Your task to perform on an android device: turn off smart reply in the gmail app Image 0: 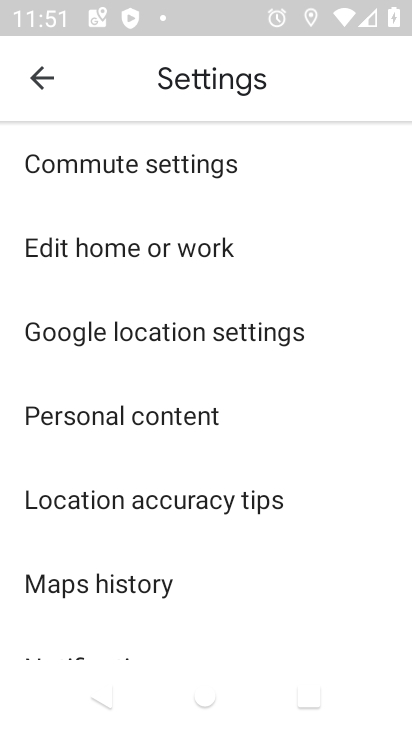
Step 0: press home button
Your task to perform on an android device: turn off smart reply in the gmail app Image 1: 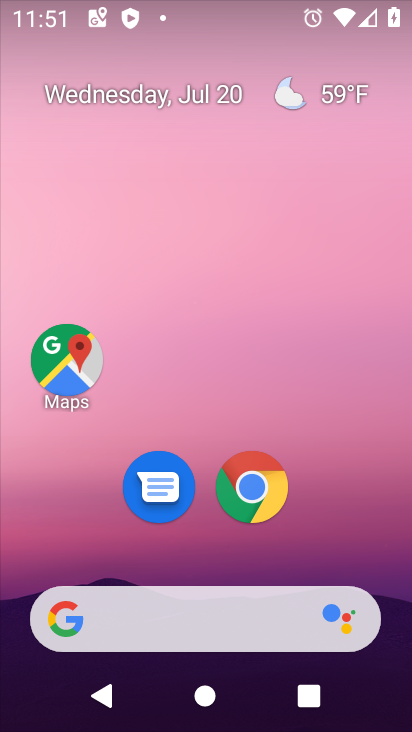
Step 1: drag from (373, 522) to (395, 99)
Your task to perform on an android device: turn off smart reply in the gmail app Image 2: 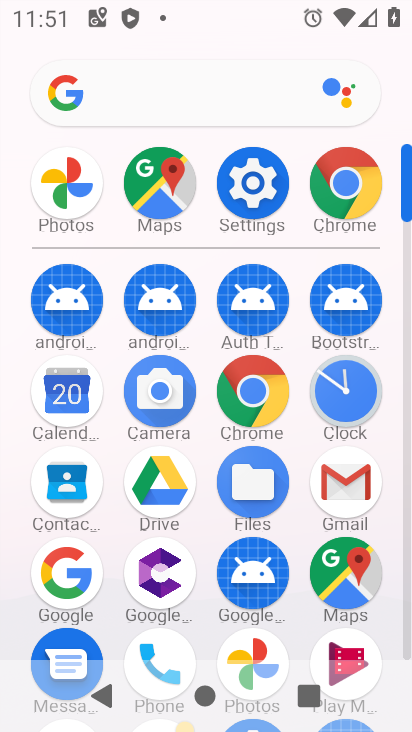
Step 2: click (362, 477)
Your task to perform on an android device: turn off smart reply in the gmail app Image 3: 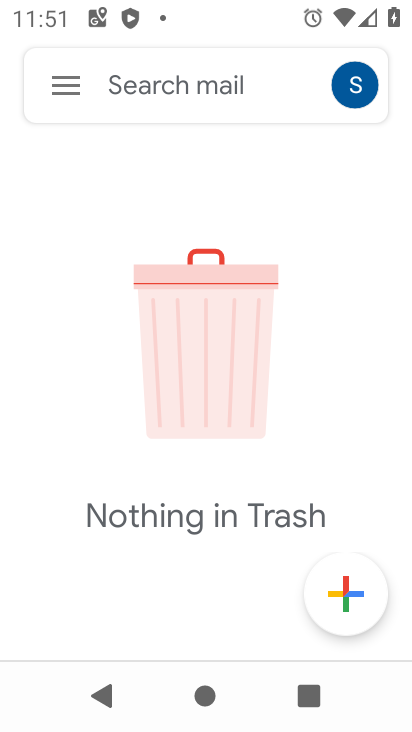
Step 3: click (65, 88)
Your task to perform on an android device: turn off smart reply in the gmail app Image 4: 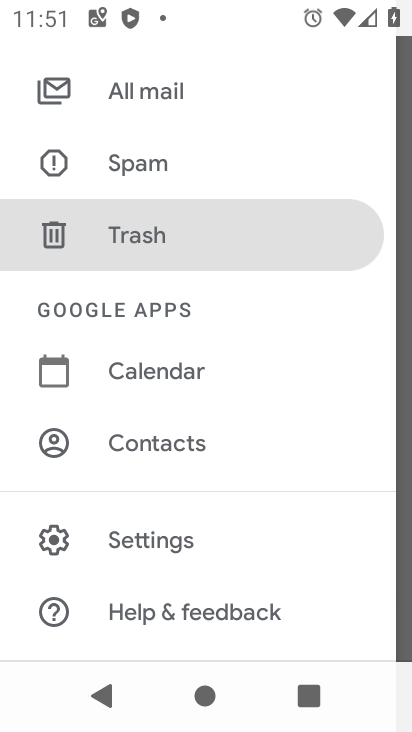
Step 4: drag from (294, 135) to (319, 253)
Your task to perform on an android device: turn off smart reply in the gmail app Image 5: 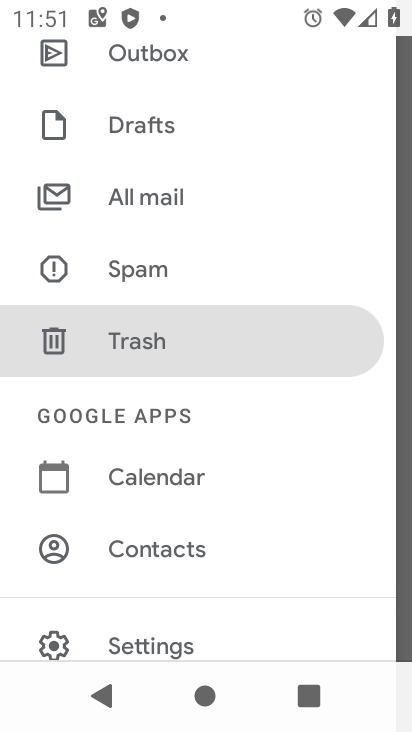
Step 5: drag from (339, 134) to (324, 253)
Your task to perform on an android device: turn off smart reply in the gmail app Image 6: 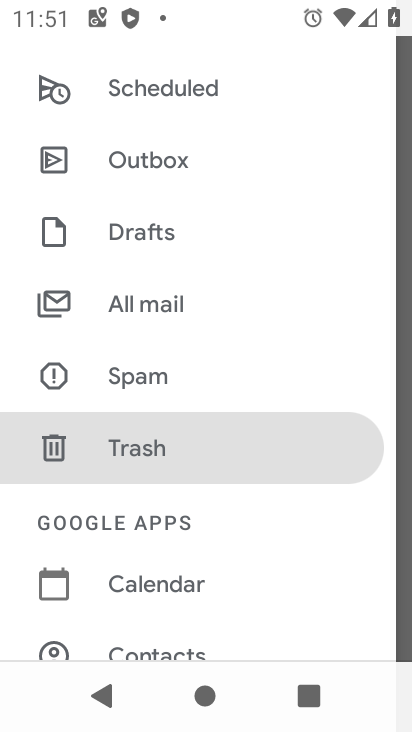
Step 6: drag from (328, 130) to (321, 288)
Your task to perform on an android device: turn off smart reply in the gmail app Image 7: 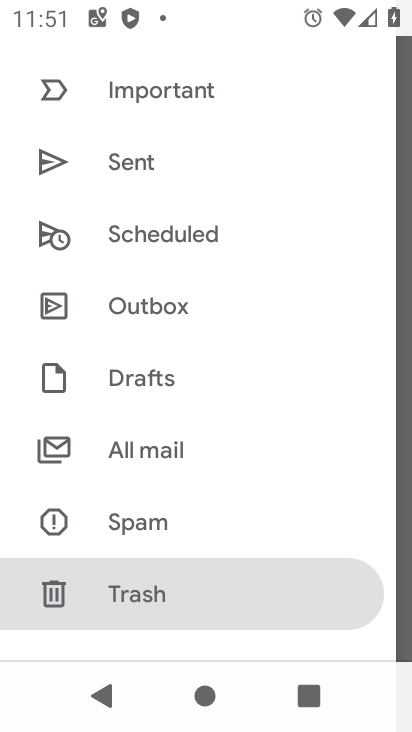
Step 7: drag from (320, 168) to (322, 291)
Your task to perform on an android device: turn off smart reply in the gmail app Image 8: 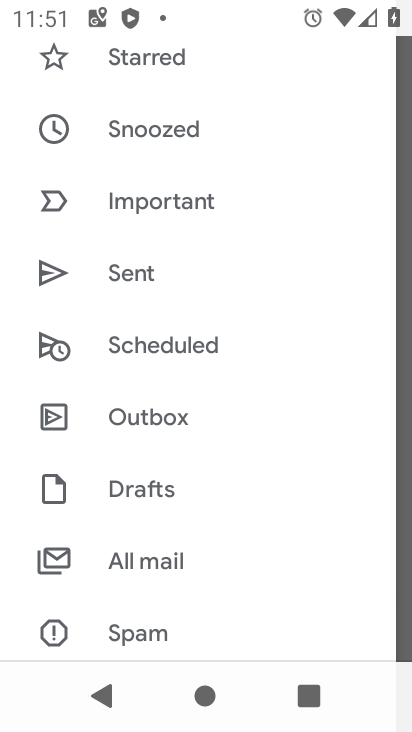
Step 8: drag from (321, 338) to (315, 236)
Your task to perform on an android device: turn off smart reply in the gmail app Image 9: 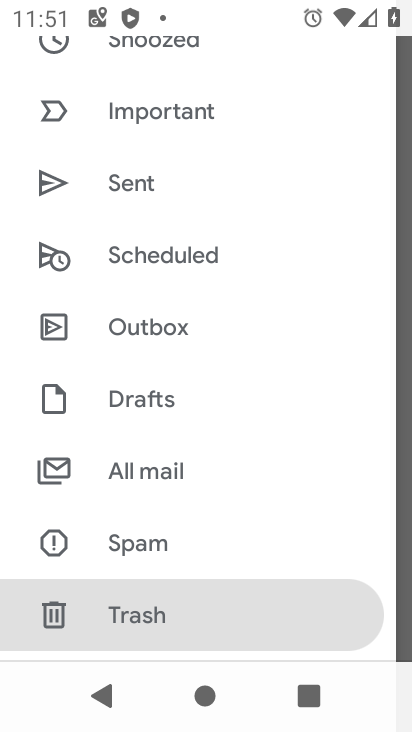
Step 9: drag from (324, 363) to (318, 252)
Your task to perform on an android device: turn off smart reply in the gmail app Image 10: 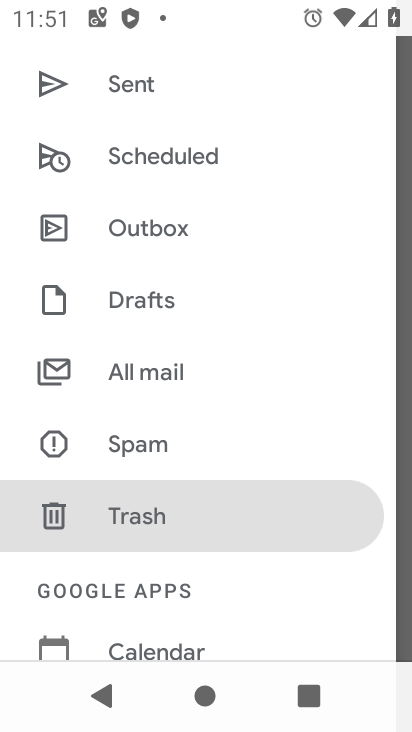
Step 10: drag from (295, 370) to (308, 255)
Your task to perform on an android device: turn off smart reply in the gmail app Image 11: 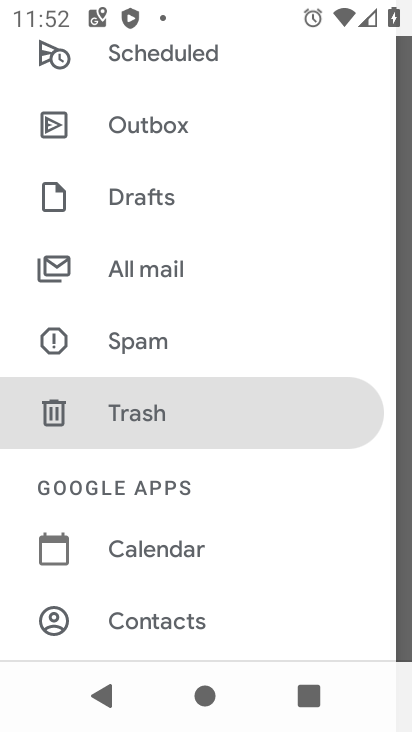
Step 11: drag from (306, 477) to (307, 295)
Your task to perform on an android device: turn off smart reply in the gmail app Image 12: 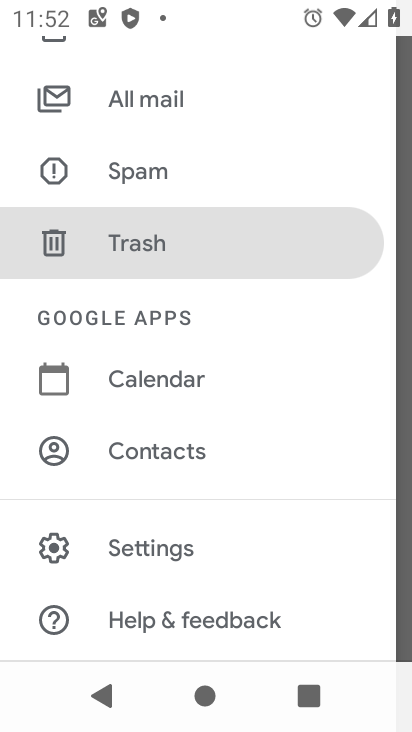
Step 12: click (269, 548)
Your task to perform on an android device: turn off smart reply in the gmail app Image 13: 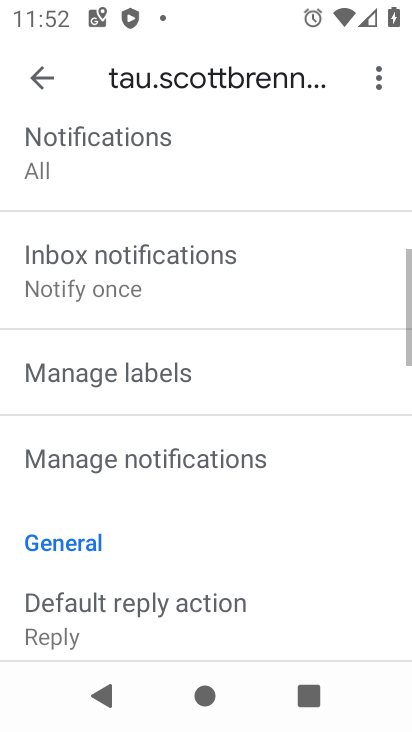
Step 13: drag from (270, 520) to (296, 400)
Your task to perform on an android device: turn off smart reply in the gmail app Image 14: 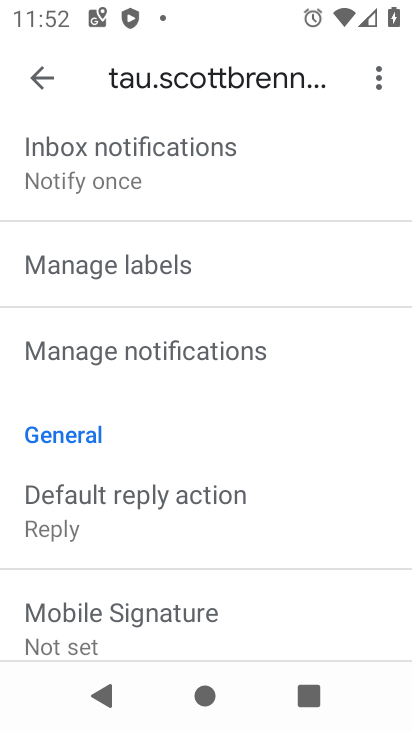
Step 14: drag from (311, 541) to (340, 424)
Your task to perform on an android device: turn off smart reply in the gmail app Image 15: 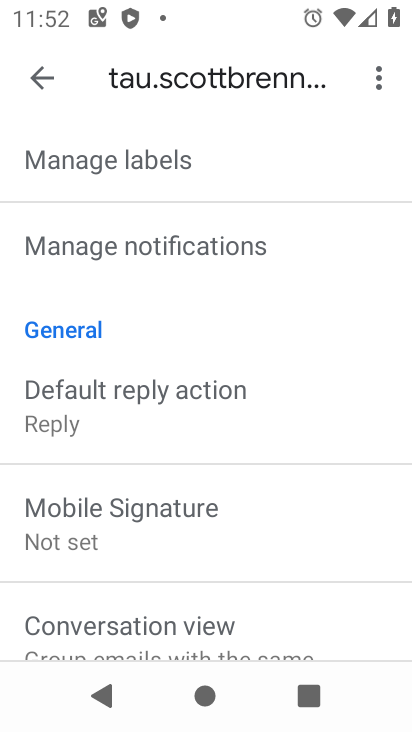
Step 15: drag from (325, 536) to (340, 424)
Your task to perform on an android device: turn off smart reply in the gmail app Image 16: 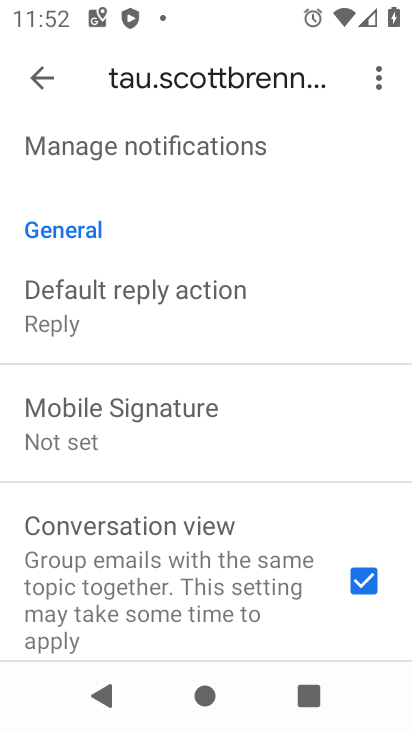
Step 16: drag from (314, 505) to (312, 358)
Your task to perform on an android device: turn off smart reply in the gmail app Image 17: 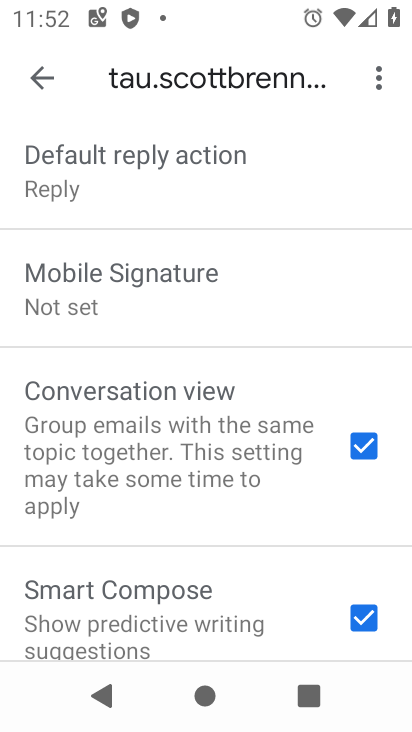
Step 17: drag from (294, 538) to (313, 408)
Your task to perform on an android device: turn off smart reply in the gmail app Image 18: 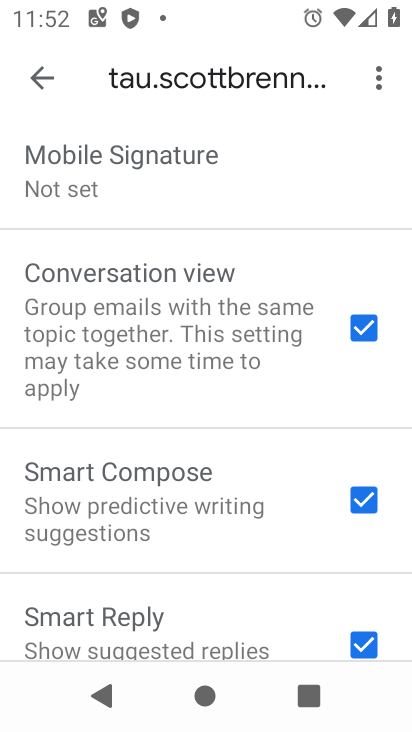
Step 18: drag from (274, 567) to (286, 416)
Your task to perform on an android device: turn off smart reply in the gmail app Image 19: 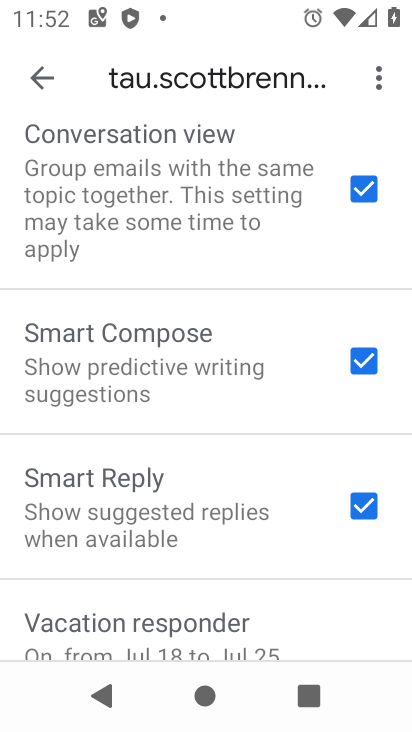
Step 19: click (366, 515)
Your task to perform on an android device: turn off smart reply in the gmail app Image 20: 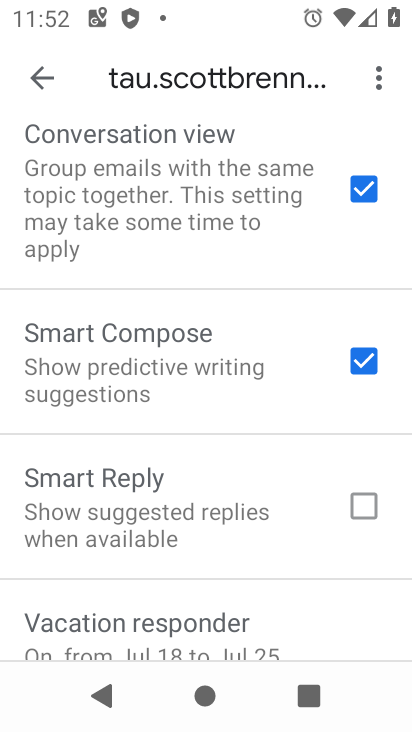
Step 20: task complete